Your task to perform on an android device: Go to privacy settings Image 0: 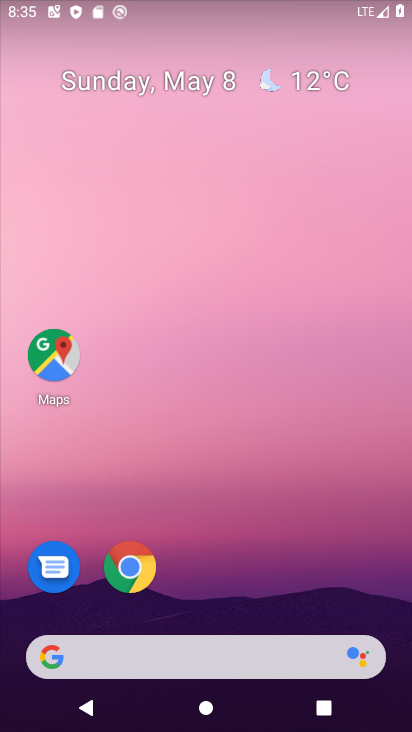
Step 0: drag from (276, 651) to (261, 223)
Your task to perform on an android device: Go to privacy settings Image 1: 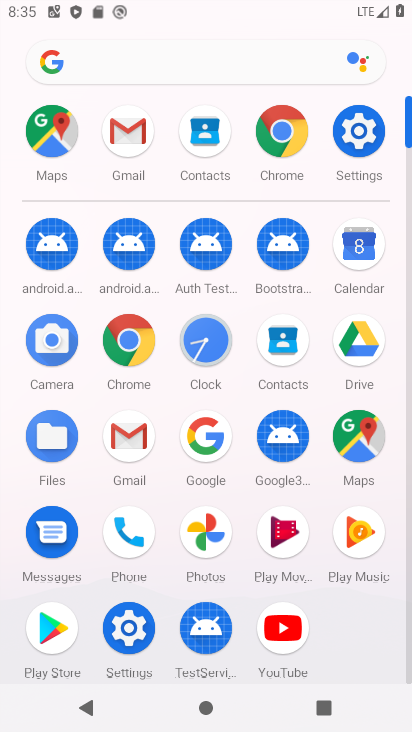
Step 1: click (357, 131)
Your task to perform on an android device: Go to privacy settings Image 2: 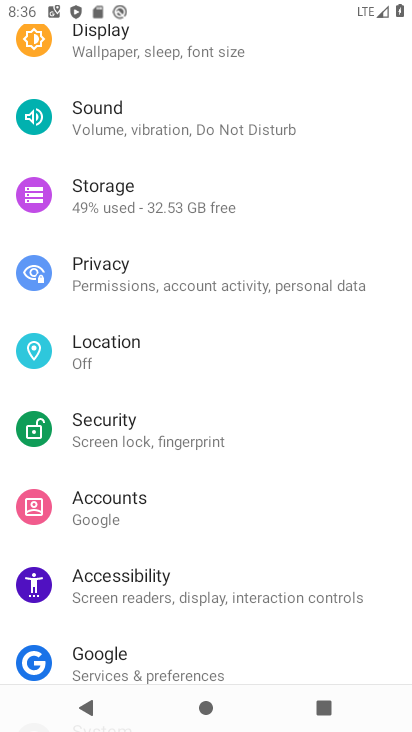
Step 2: click (127, 262)
Your task to perform on an android device: Go to privacy settings Image 3: 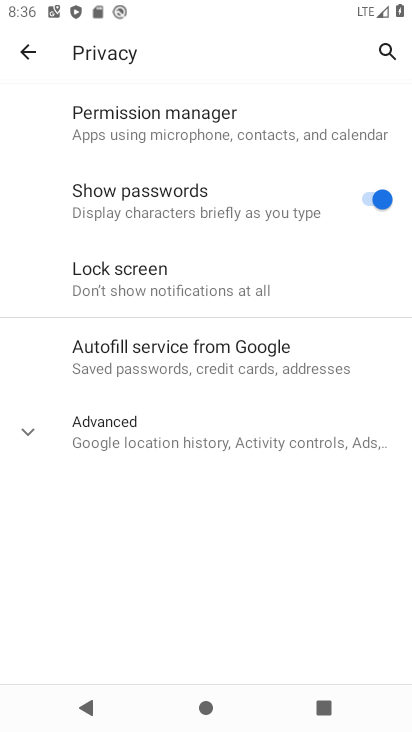
Step 3: task complete